Your task to perform on an android device: empty trash in the gmail app Image 0: 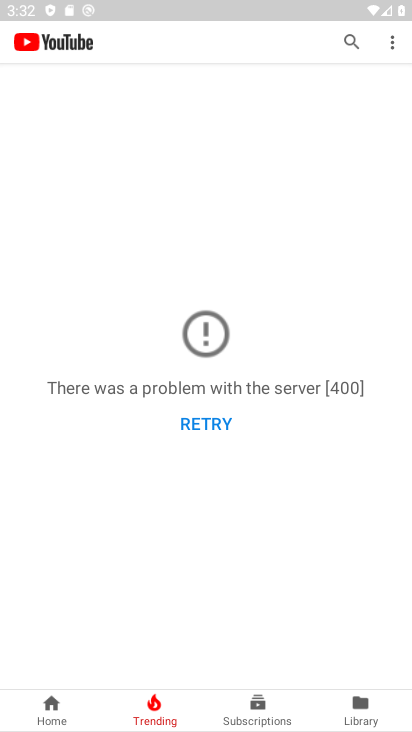
Step 0: press home button
Your task to perform on an android device: empty trash in the gmail app Image 1: 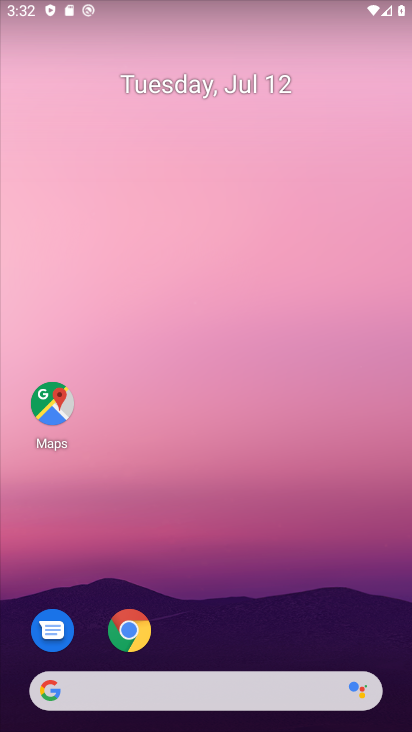
Step 1: drag from (249, 613) to (249, 255)
Your task to perform on an android device: empty trash in the gmail app Image 2: 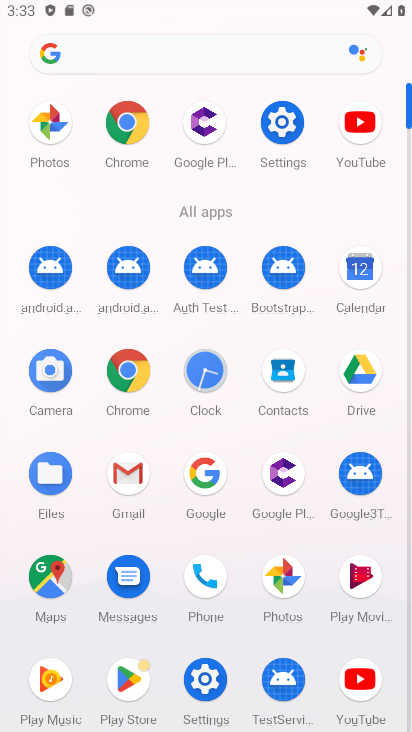
Step 2: click (128, 465)
Your task to perform on an android device: empty trash in the gmail app Image 3: 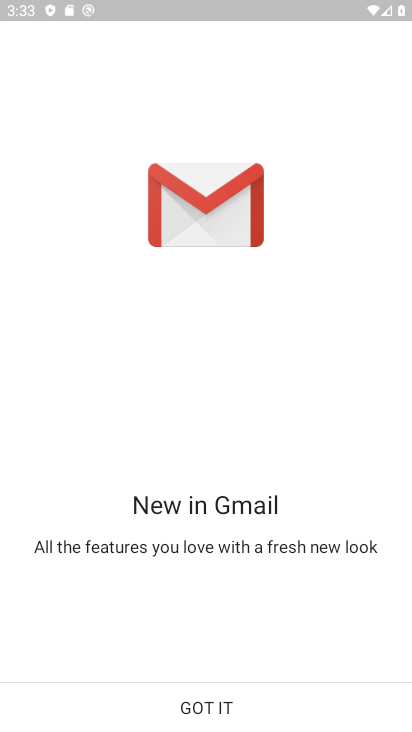
Step 3: click (171, 709)
Your task to perform on an android device: empty trash in the gmail app Image 4: 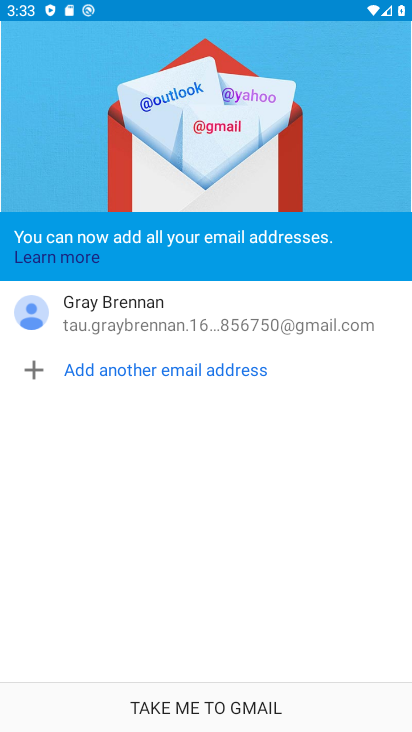
Step 4: click (171, 709)
Your task to perform on an android device: empty trash in the gmail app Image 5: 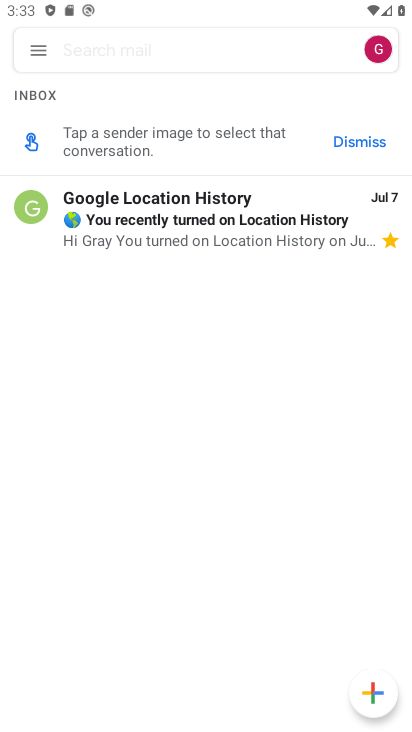
Step 5: click (30, 42)
Your task to perform on an android device: empty trash in the gmail app Image 6: 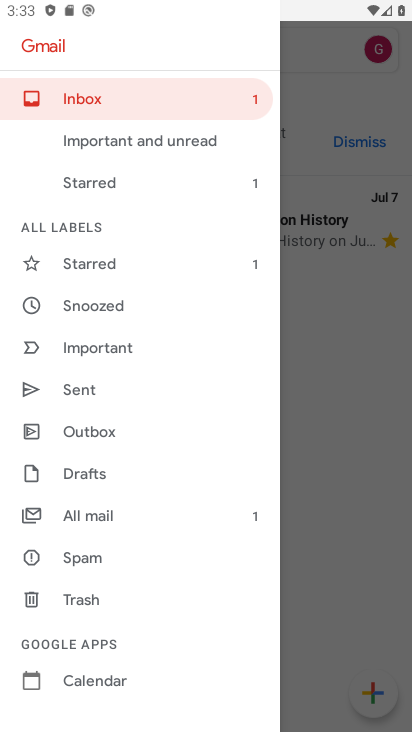
Step 6: click (102, 593)
Your task to perform on an android device: empty trash in the gmail app Image 7: 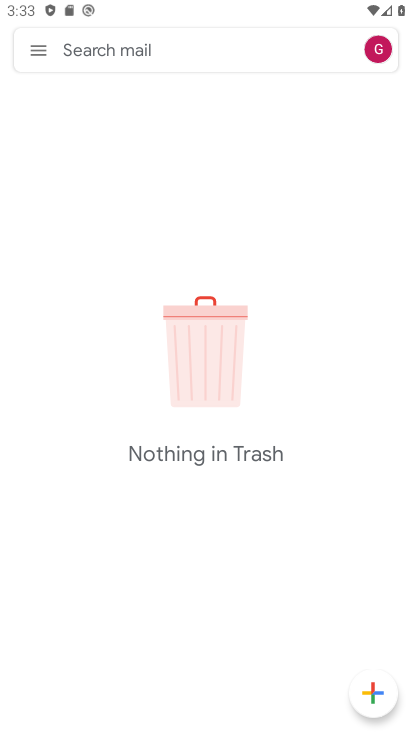
Step 7: task complete